Your task to perform on an android device: add a label to a message in the gmail app Image 0: 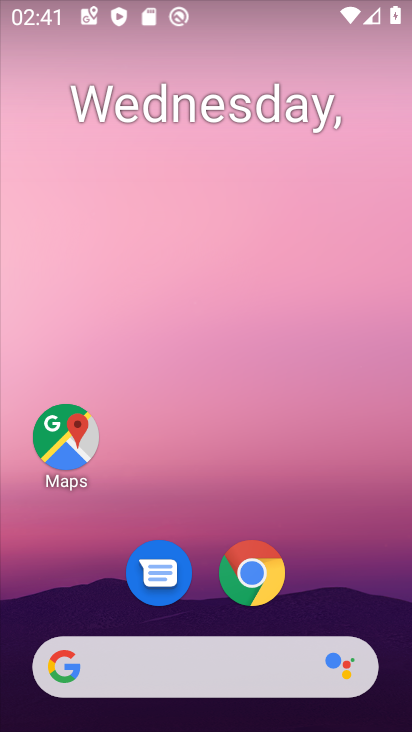
Step 0: drag from (347, 582) to (328, 137)
Your task to perform on an android device: add a label to a message in the gmail app Image 1: 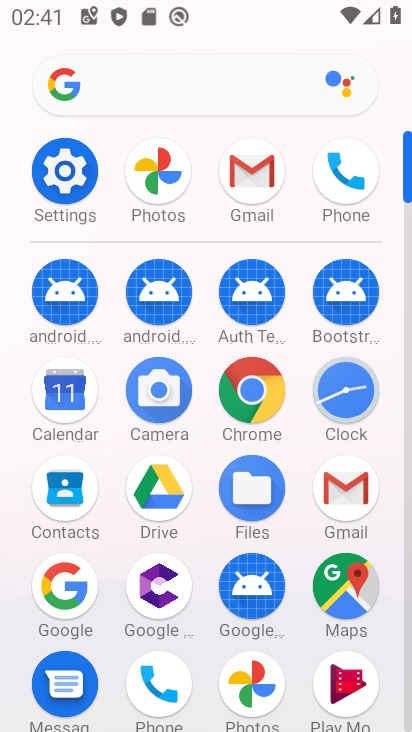
Step 1: click (251, 172)
Your task to perform on an android device: add a label to a message in the gmail app Image 2: 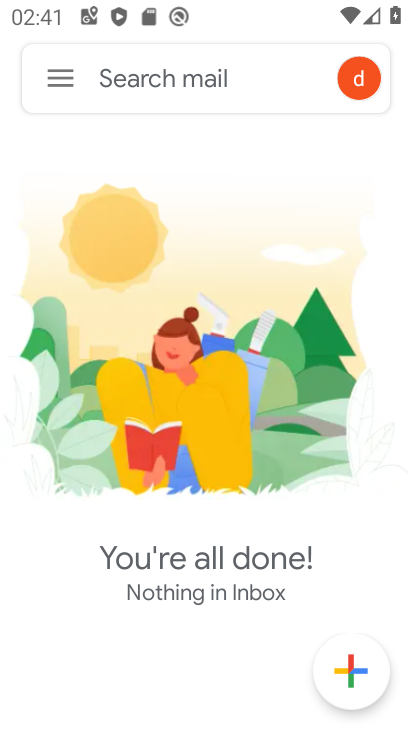
Step 2: click (60, 78)
Your task to perform on an android device: add a label to a message in the gmail app Image 3: 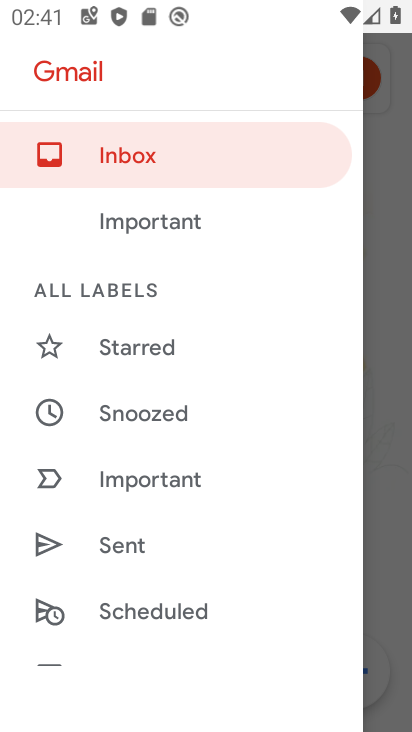
Step 3: drag from (216, 368) to (245, 571)
Your task to perform on an android device: add a label to a message in the gmail app Image 4: 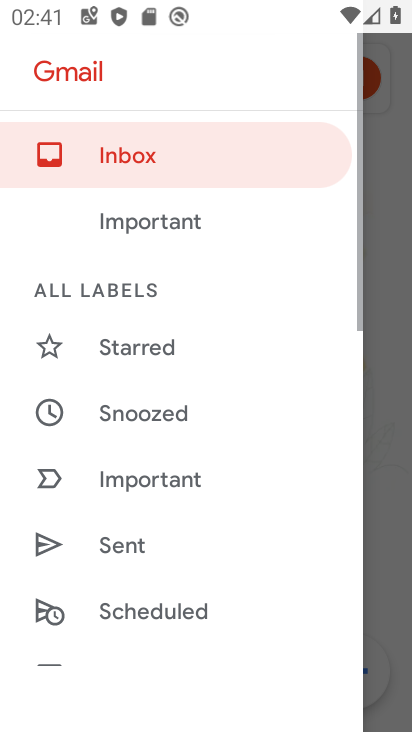
Step 4: drag from (196, 556) to (203, 319)
Your task to perform on an android device: add a label to a message in the gmail app Image 5: 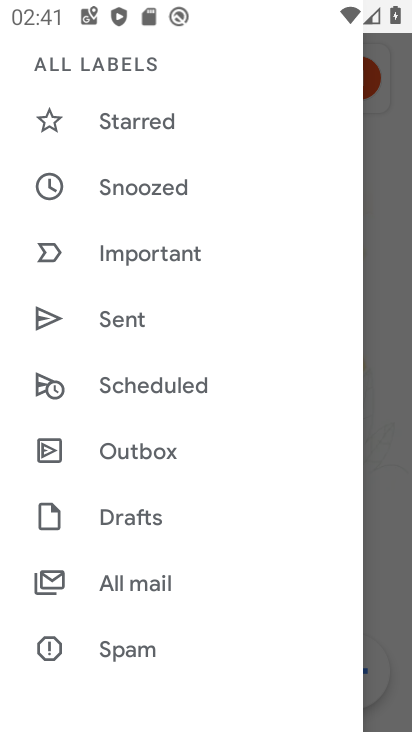
Step 5: drag from (153, 516) to (192, 350)
Your task to perform on an android device: add a label to a message in the gmail app Image 6: 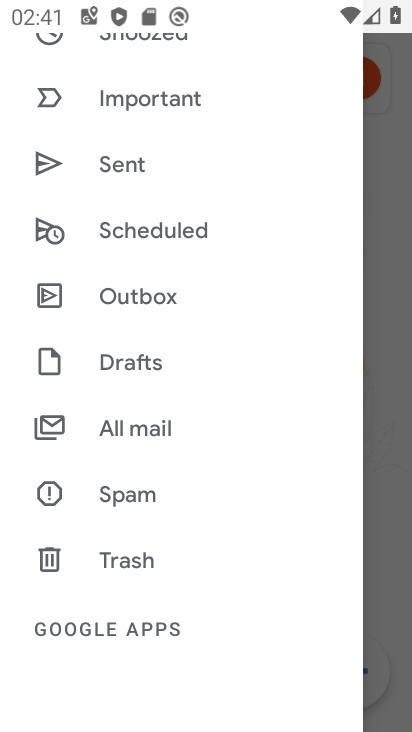
Step 6: click (124, 418)
Your task to perform on an android device: add a label to a message in the gmail app Image 7: 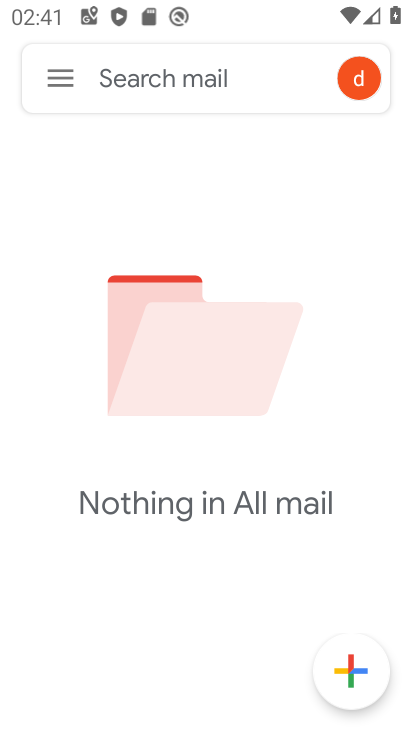
Step 7: click (51, 75)
Your task to perform on an android device: add a label to a message in the gmail app Image 8: 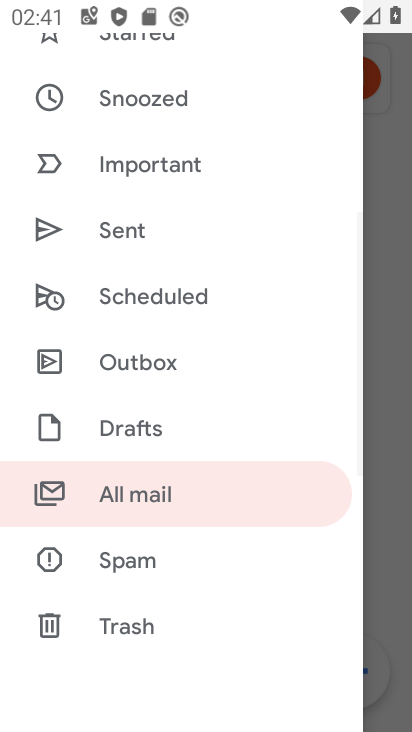
Step 8: drag from (116, 577) to (180, 313)
Your task to perform on an android device: add a label to a message in the gmail app Image 9: 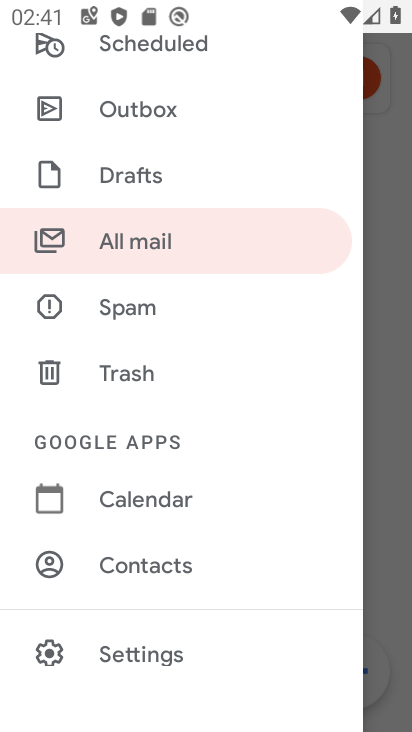
Step 9: drag from (114, 548) to (144, 387)
Your task to perform on an android device: add a label to a message in the gmail app Image 10: 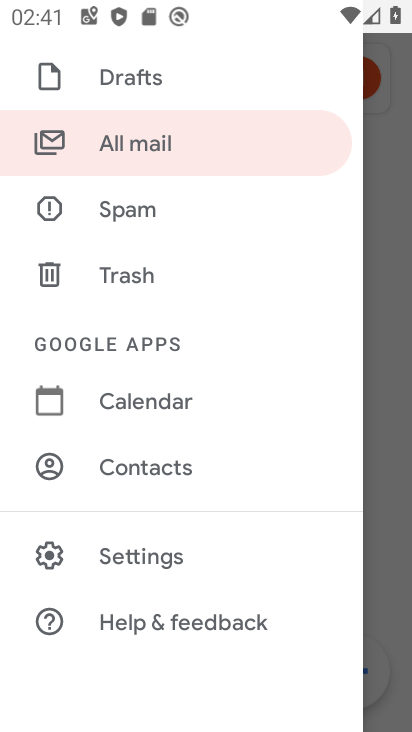
Step 10: click (390, 229)
Your task to perform on an android device: add a label to a message in the gmail app Image 11: 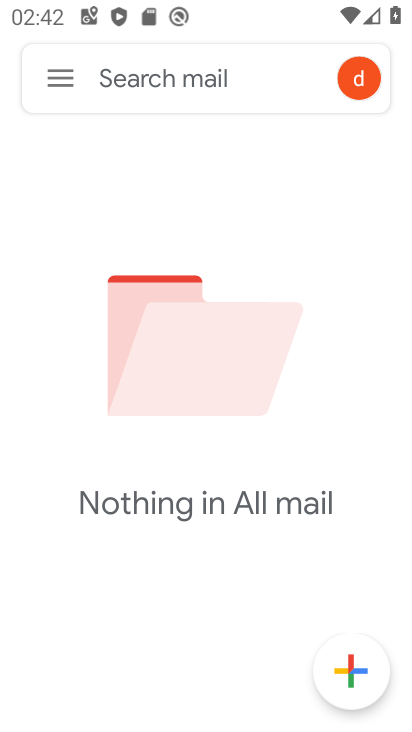
Step 11: task complete